Your task to perform on an android device: Search for Italian restaurants on Maps Image 0: 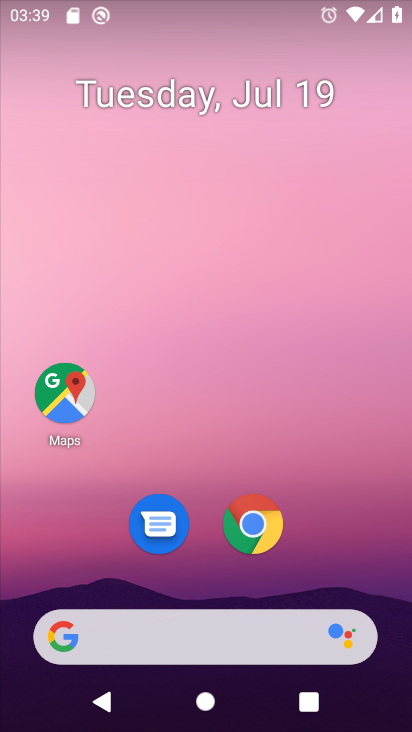
Step 0: click (65, 410)
Your task to perform on an android device: Search for Italian restaurants on Maps Image 1: 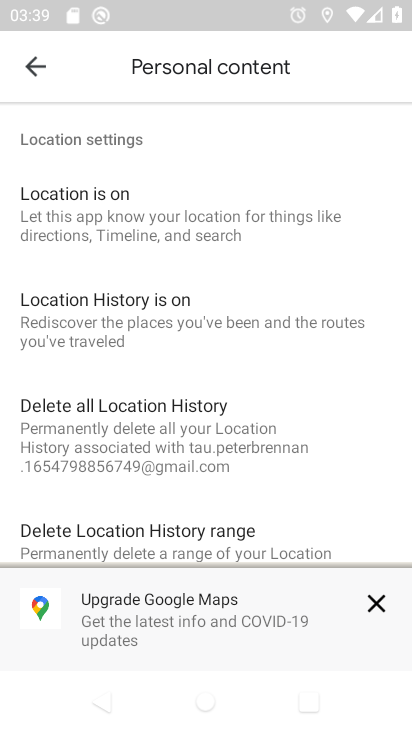
Step 1: click (26, 65)
Your task to perform on an android device: Search for Italian restaurants on Maps Image 2: 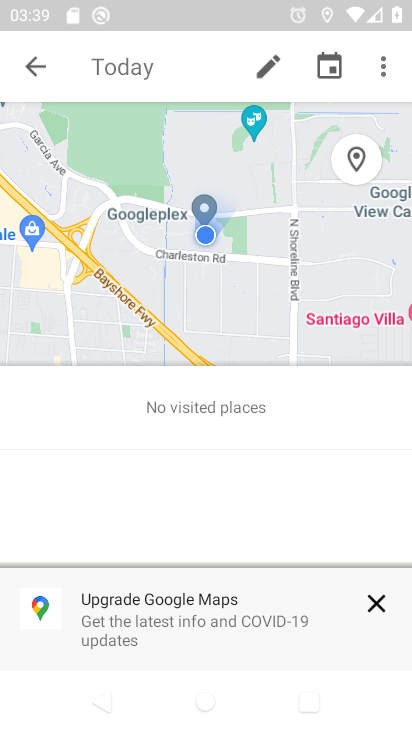
Step 2: click (32, 60)
Your task to perform on an android device: Search for Italian restaurants on Maps Image 3: 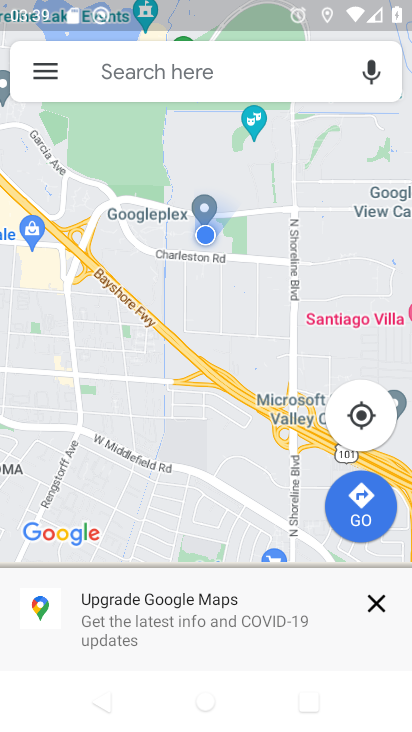
Step 3: click (178, 77)
Your task to perform on an android device: Search for Italian restaurants on Maps Image 4: 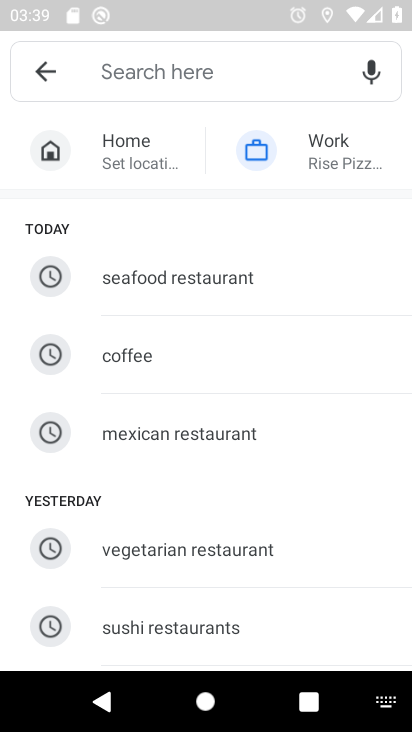
Step 4: drag from (201, 547) to (249, 232)
Your task to perform on an android device: Search for Italian restaurants on Maps Image 5: 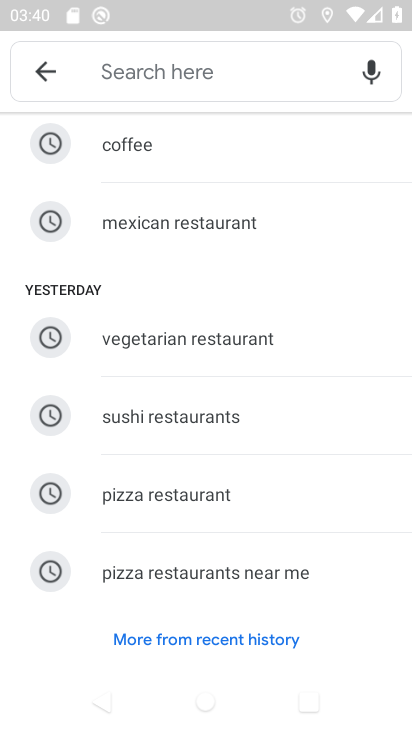
Step 5: drag from (221, 261) to (186, 624)
Your task to perform on an android device: Search for Italian restaurants on Maps Image 6: 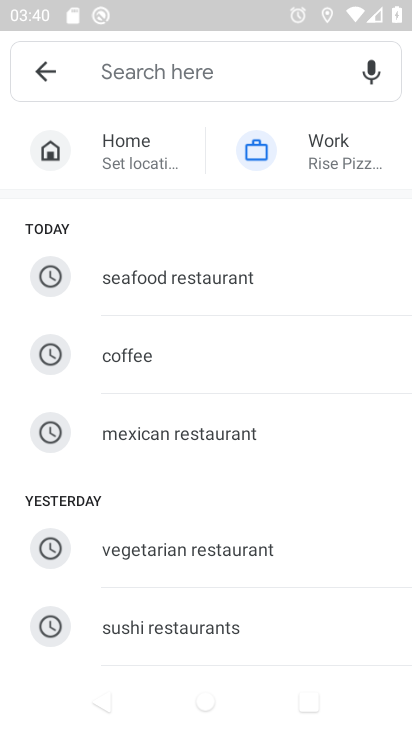
Step 6: click (257, 68)
Your task to perform on an android device: Search for Italian restaurants on Maps Image 7: 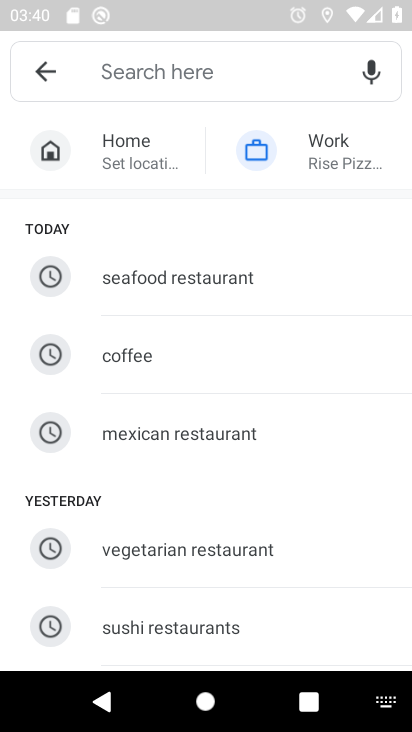
Step 7: type "italian restaurants"
Your task to perform on an android device: Search for Italian restaurants on Maps Image 8: 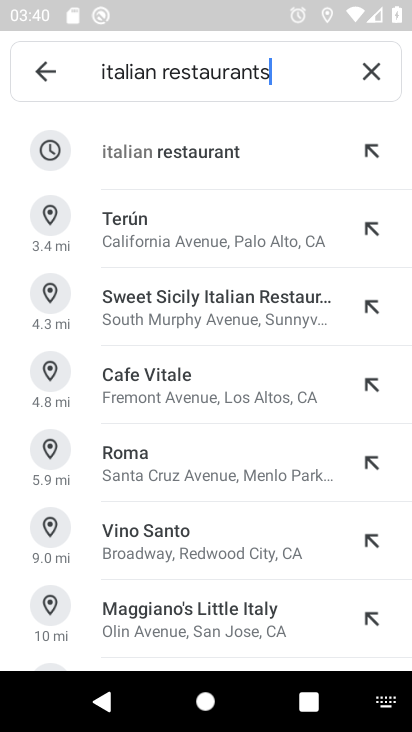
Step 8: click (216, 149)
Your task to perform on an android device: Search for Italian restaurants on Maps Image 9: 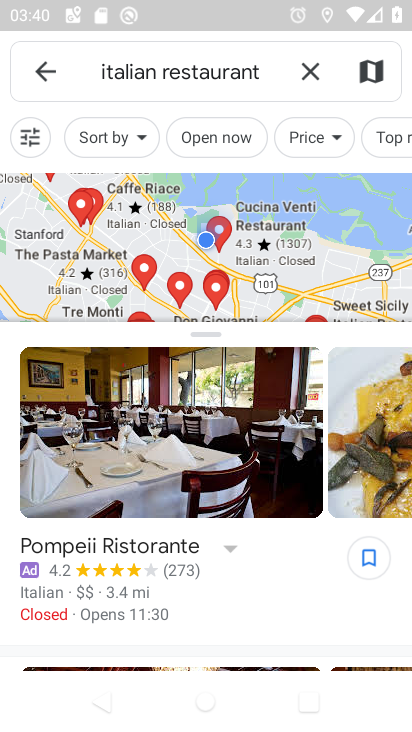
Step 9: task complete